Your task to perform on an android device: stop showing notifications on the lock screen Image 0: 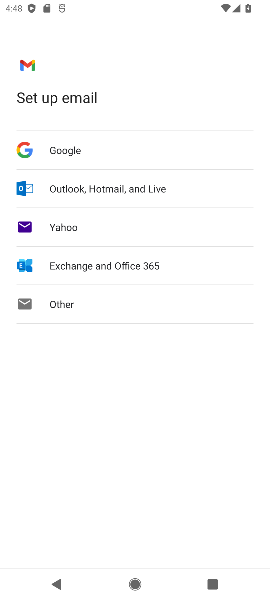
Step 0: press home button
Your task to perform on an android device: stop showing notifications on the lock screen Image 1: 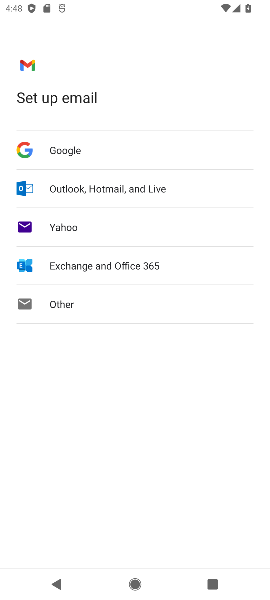
Step 1: press home button
Your task to perform on an android device: stop showing notifications on the lock screen Image 2: 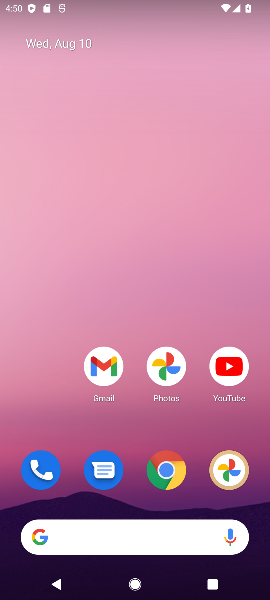
Step 2: drag from (99, 417) to (192, 71)
Your task to perform on an android device: stop showing notifications on the lock screen Image 3: 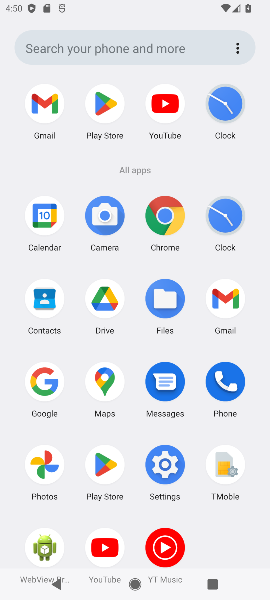
Step 3: click (169, 473)
Your task to perform on an android device: stop showing notifications on the lock screen Image 4: 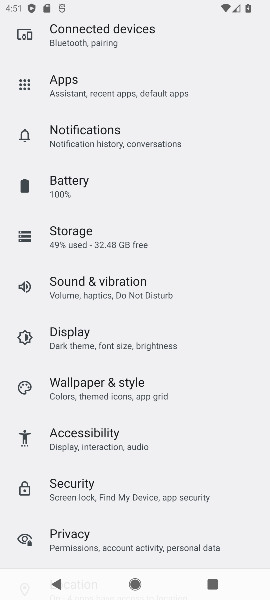
Step 4: click (93, 131)
Your task to perform on an android device: stop showing notifications on the lock screen Image 5: 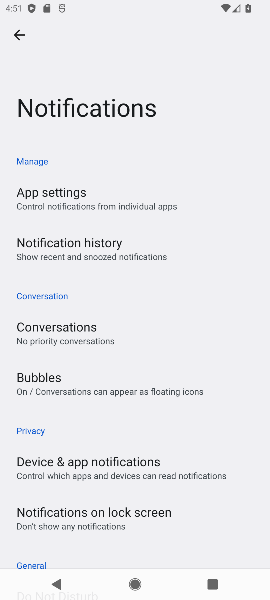
Step 5: click (67, 511)
Your task to perform on an android device: stop showing notifications on the lock screen Image 6: 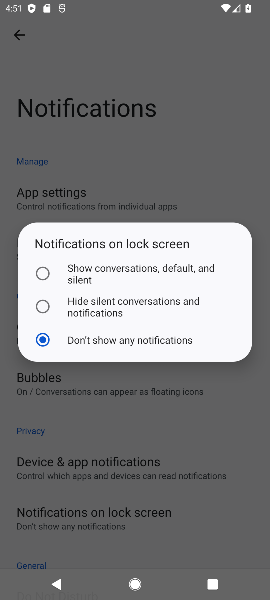
Step 6: click (96, 345)
Your task to perform on an android device: stop showing notifications on the lock screen Image 7: 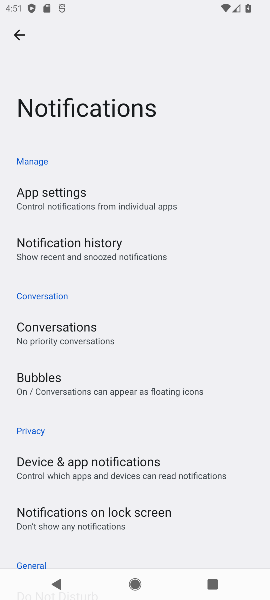
Step 7: task complete